Your task to perform on an android device: What's the weather going to be this weekend? Image 0: 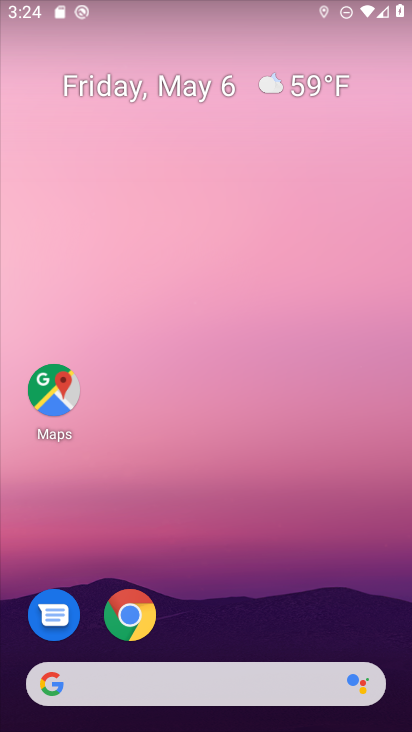
Step 0: drag from (247, 548) to (224, 79)
Your task to perform on an android device: What's the weather going to be this weekend? Image 1: 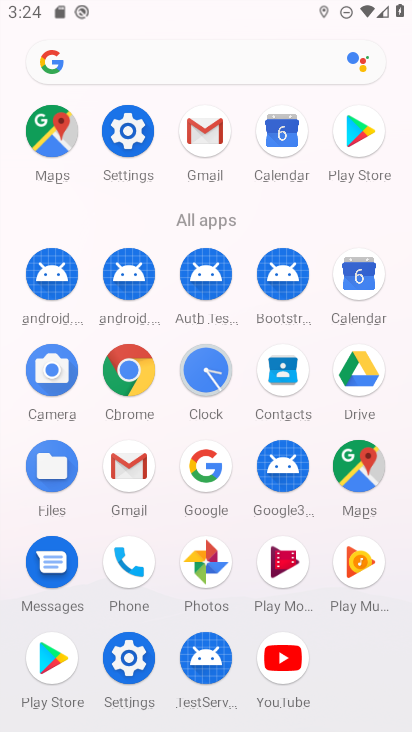
Step 1: click (357, 455)
Your task to perform on an android device: What's the weather going to be this weekend? Image 2: 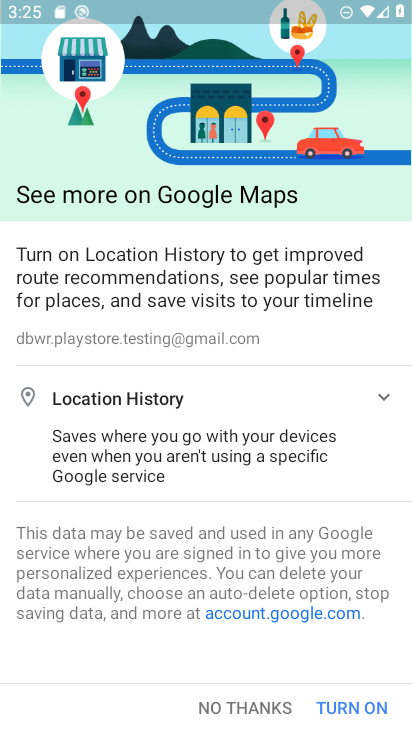
Step 2: press home button
Your task to perform on an android device: What's the weather going to be this weekend? Image 3: 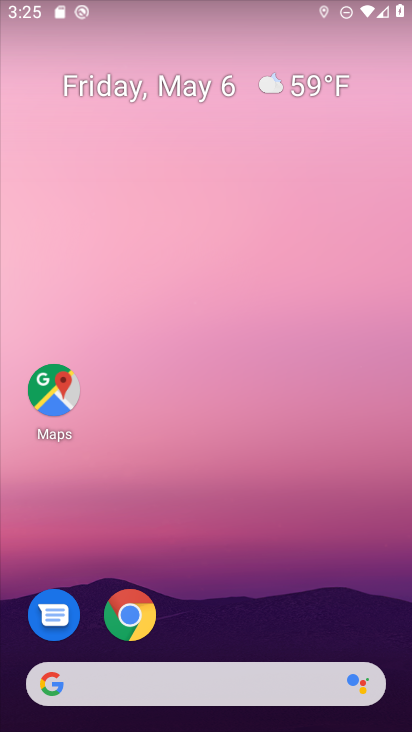
Step 3: click (302, 589)
Your task to perform on an android device: What's the weather going to be this weekend? Image 4: 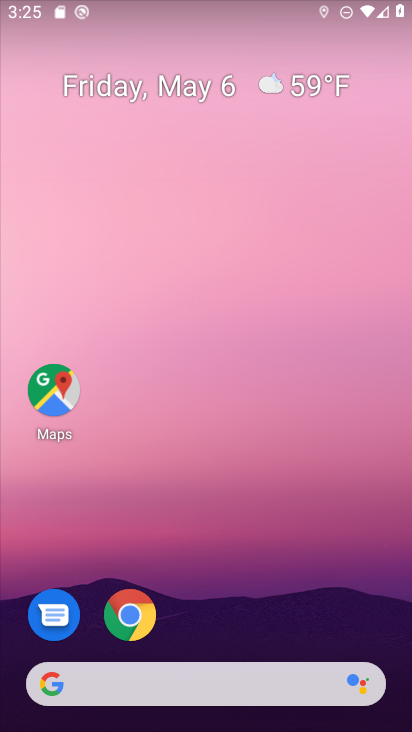
Step 4: click (132, 602)
Your task to perform on an android device: What's the weather going to be this weekend? Image 5: 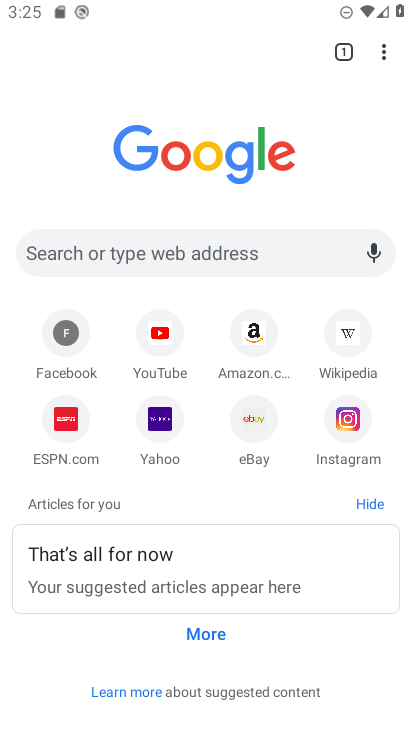
Step 5: click (306, 245)
Your task to perform on an android device: What's the weather going to be this weekend? Image 6: 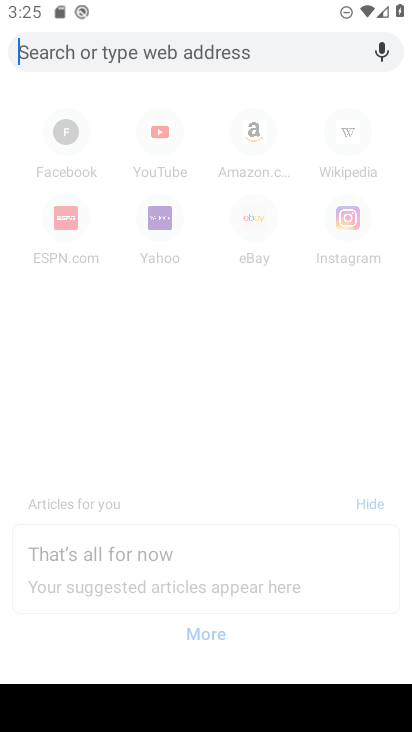
Step 6: type "What's the weather going to be this weekend?"
Your task to perform on an android device: What's the weather going to be this weekend? Image 7: 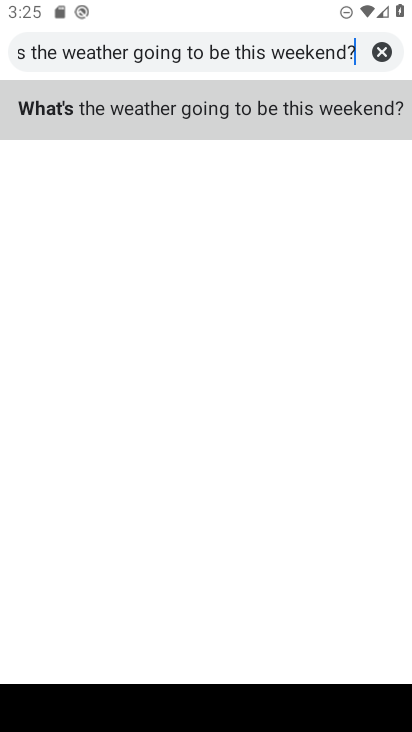
Step 7: click (287, 116)
Your task to perform on an android device: What's the weather going to be this weekend? Image 8: 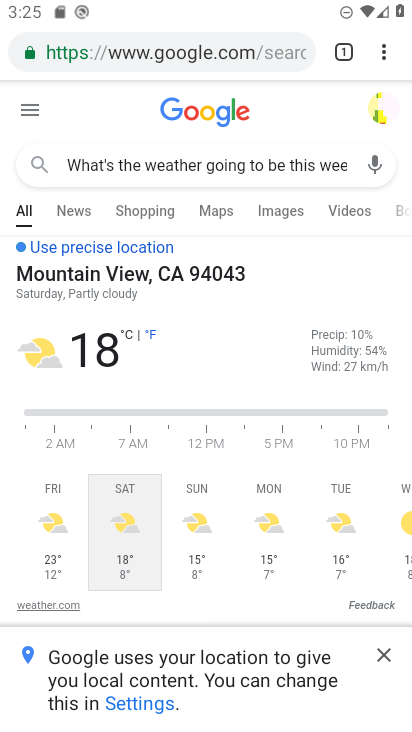
Step 8: task complete